Your task to perform on an android device: open the mobile data screen to see how much data has been used Image 0: 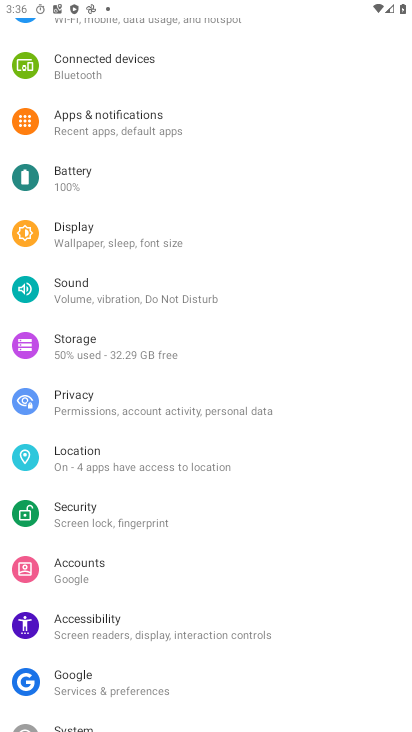
Step 0: press home button
Your task to perform on an android device: open the mobile data screen to see how much data has been used Image 1: 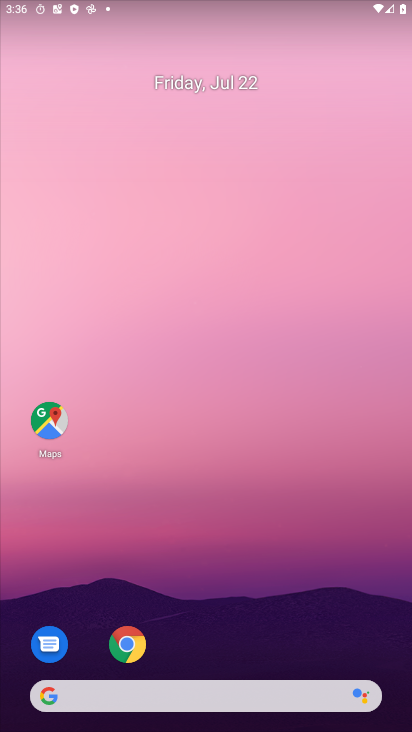
Step 1: drag from (216, 402) to (293, 149)
Your task to perform on an android device: open the mobile data screen to see how much data has been used Image 2: 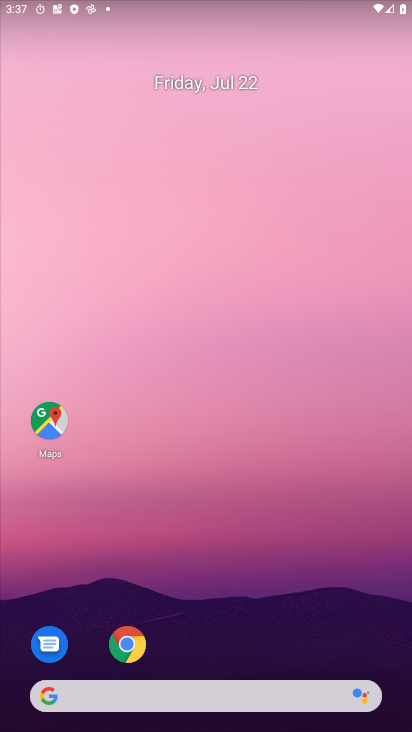
Step 2: drag from (259, 653) to (267, 86)
Your task to perform on an android device: open the mobile data screen to see how much data has been used Image 3: 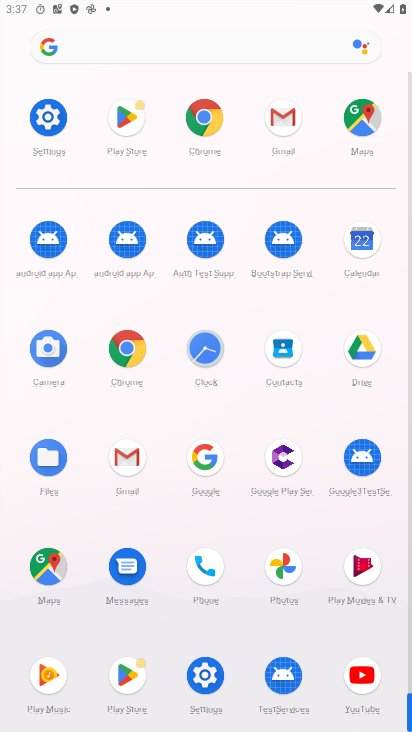
Step 3: click (66, 125)
Your task to perform on an android device: open the mobile data screen to see how much data has been used Image 4: 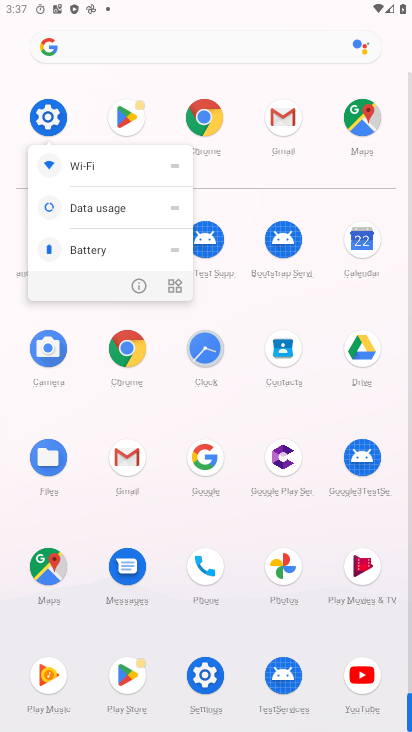
Step 4: click (52, 124)
Your task to perform on an android device: open the mobile data screen to see how much data has been used Image 5: 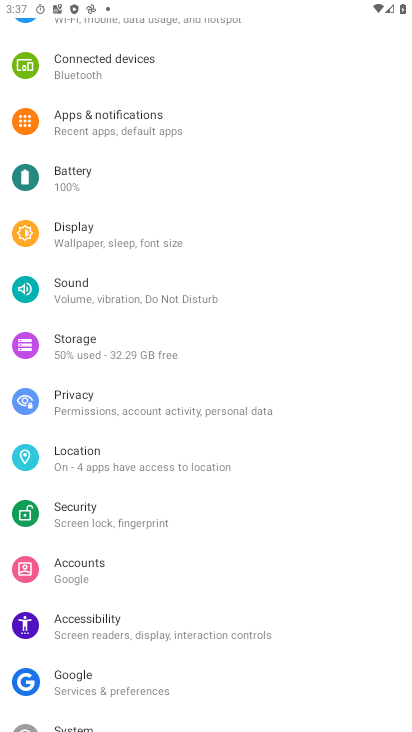
Step 5: drag from (240, 316) to (266, 689)
Your task to perform on an android device: open the mobile data screen to see how much data has been used Image 6: 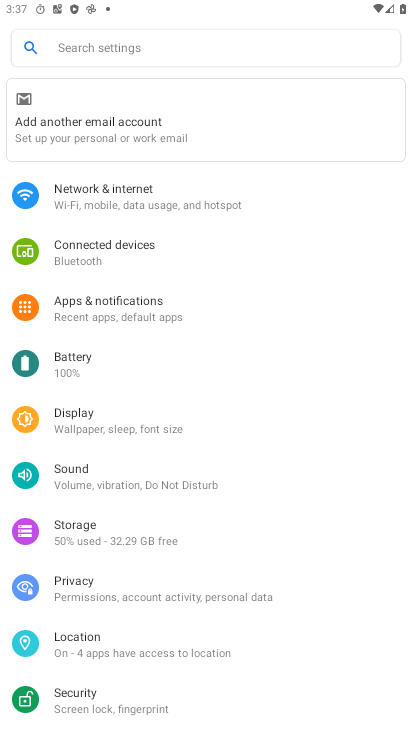
Step 6: click (150, 203)
Your task to perform on an android device: open the mobile data screen to see how much data has been used Image 7: 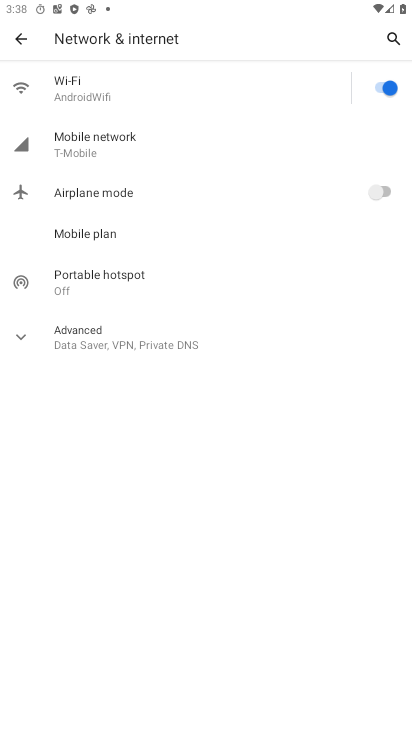
Step 7: click (148, 153)
Your task to perform on an android device: open the mobile data screen to see how much data has been used Image 8: 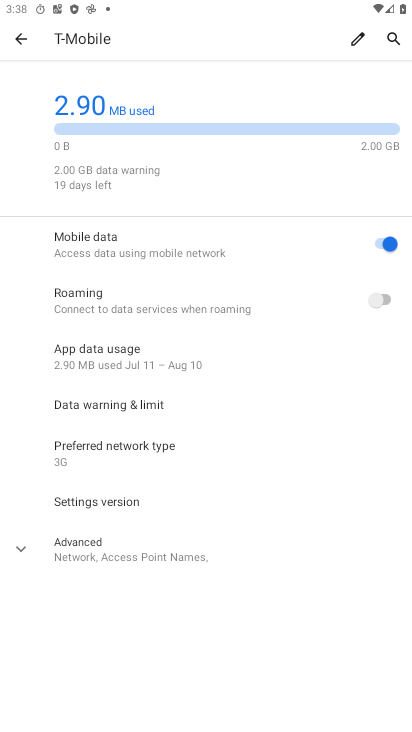
Step 8: click (174, 367)
Your task to perform on an android device: open the mobile data screen to see how much data has been used Image 9: 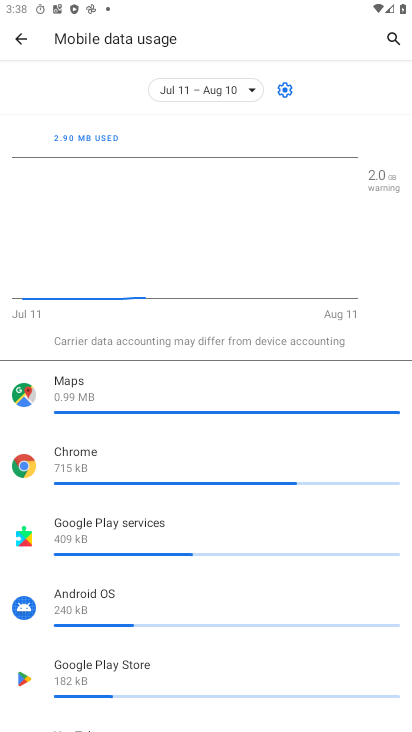
Step 9: task complete